Your task to perform on an android device: Go to Wikipedia Image 0: 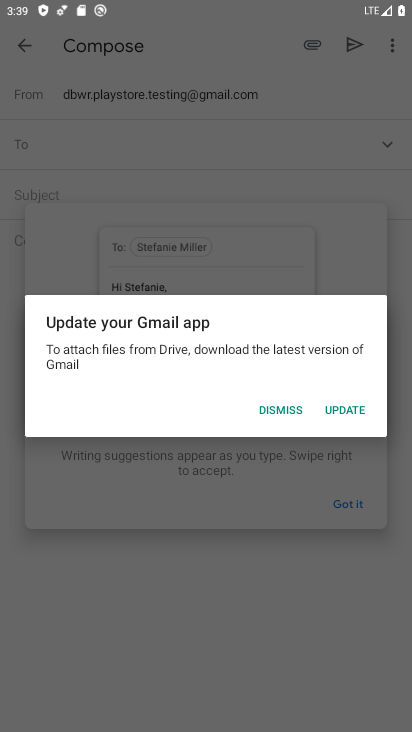
Step 0: press back button
Your task to perform on an android device: Go to Wikipedia Image 1: 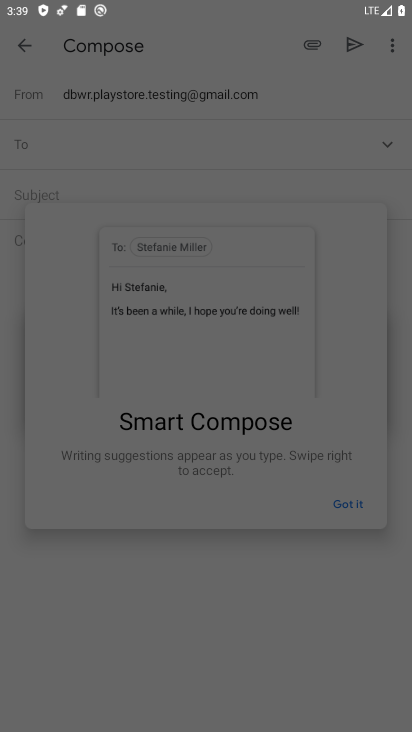
Step 1: press home button
Your task to perform on an android device: Go to Wikipedia Image 2: 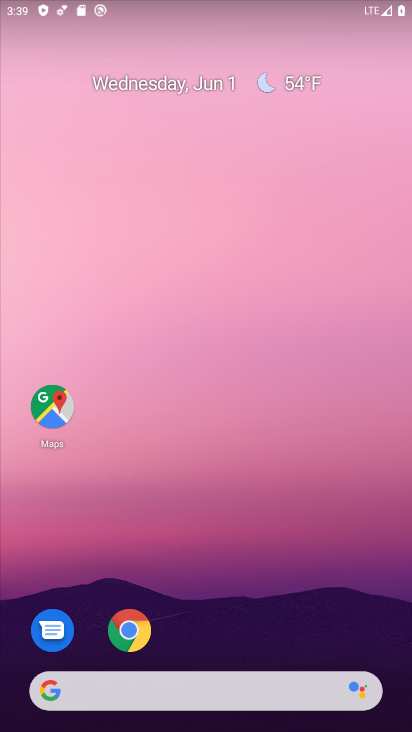
Step 2: drag from (294, 562) to (220, 9)
Your task to perform on an android device: Go to Wikipedia Image 3: 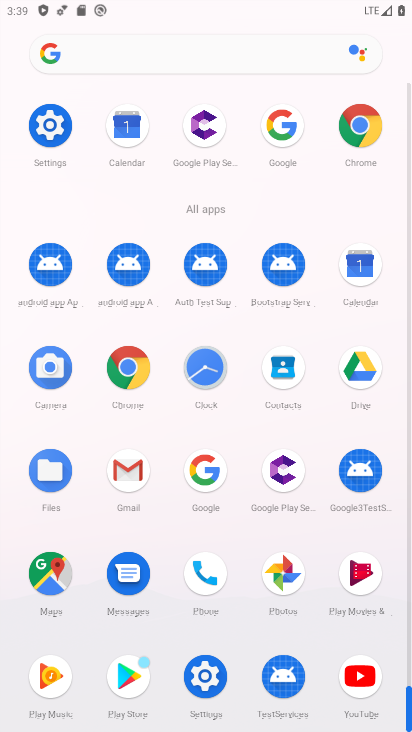
Step 3: click (126, 363)
Your task to perform on an android device: Go to Wikipedia Image 4: 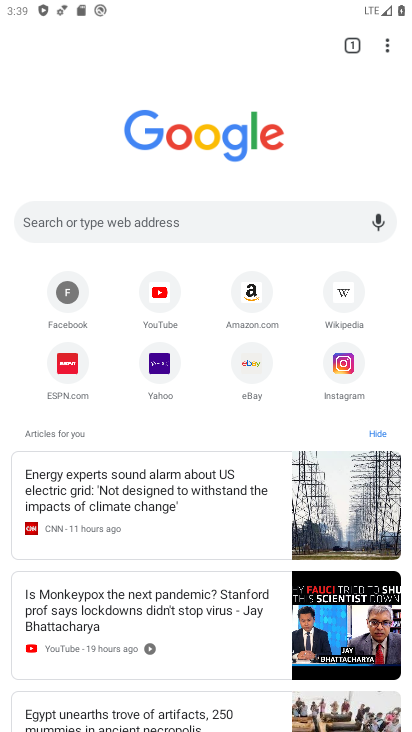
Step 4: click (343, 298)
Your task to perform on an android device: Go to Wikipedia Image 5: 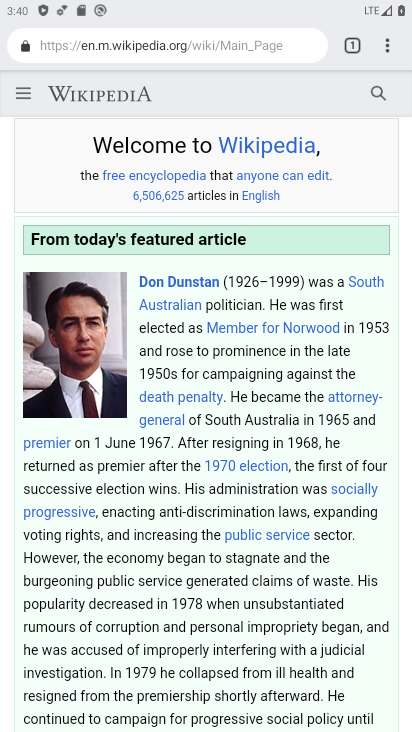
Step 5: task complete